Your task to perform on an android device: all mails in gmail Image 0: 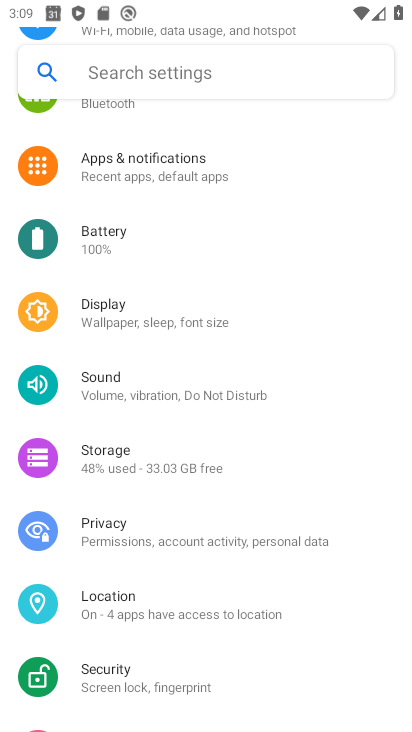
Step 0: press back button
Your task to perform on an android device: all mails in gmail Image 1: 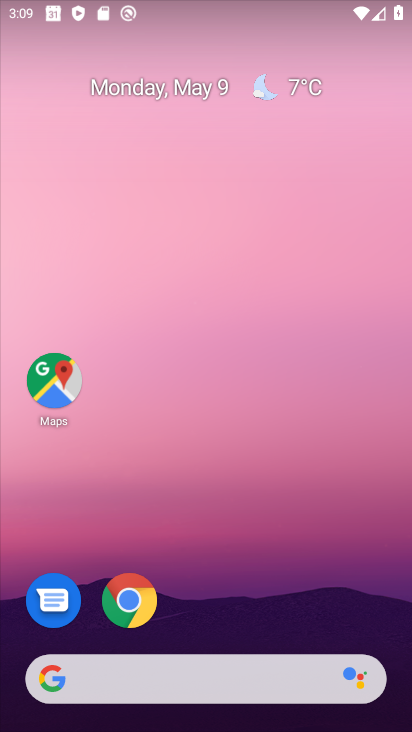
Step 1: drag from (330, 570) to (276, 65)
Your task to perform on an android device: all mails in gmail Image 2: 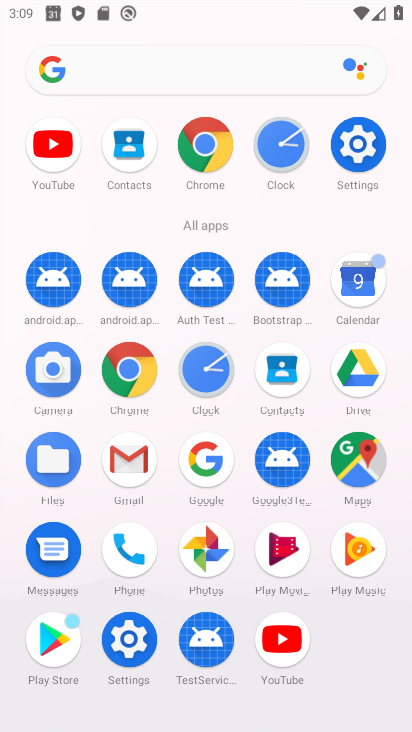
Step 2: click (129, 452)
Your task to perform on an android device: all mails in gmail Image 3: 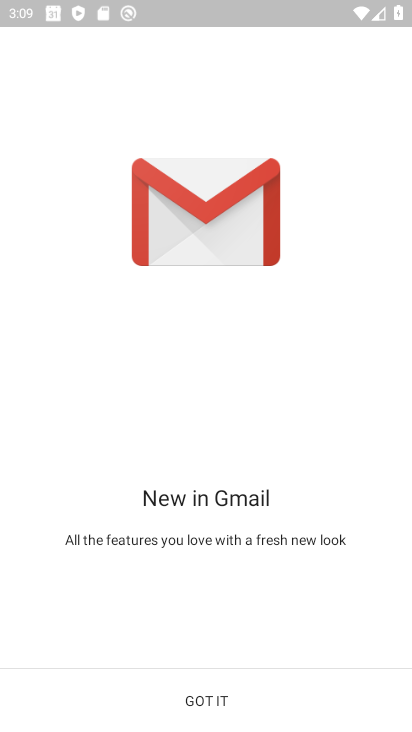
Step 3: click (210, 710)
Your task to perform on an android device: all mails in gmail Image 4: 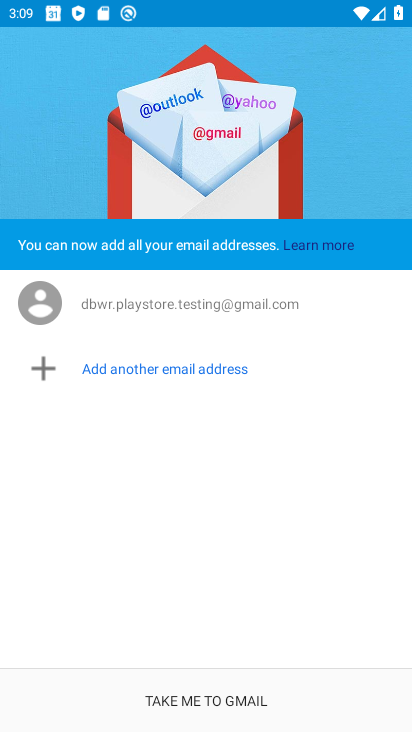
Step 4: click (209, 693)
Your task to perform on an android device: all mails in gmail Image 5: 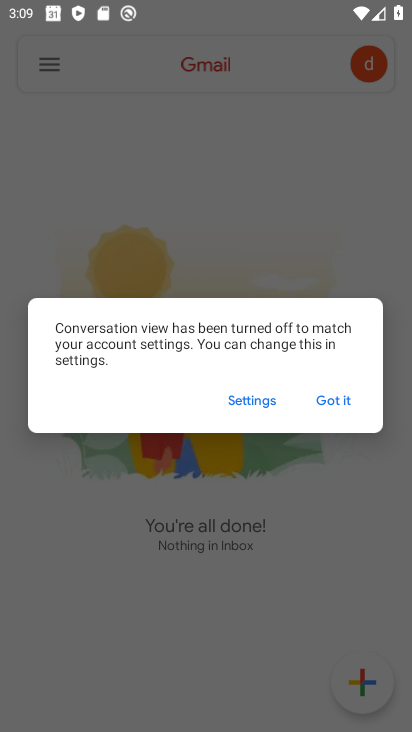
Step 5: click (320, 402)
Your task to perform on an android device: all mails in gmail Image 6: 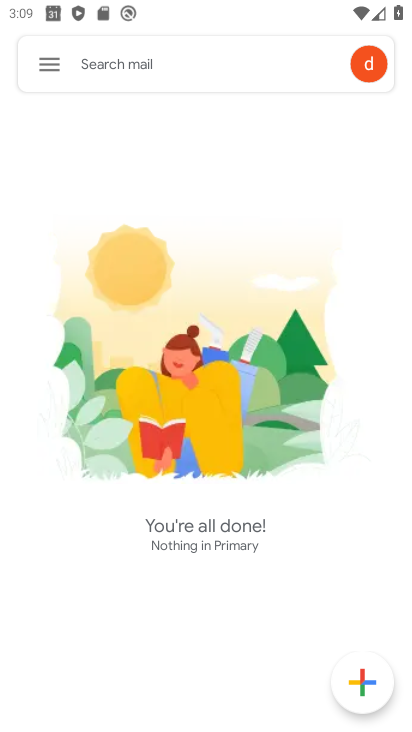
Step 6: click (40, 52)
Your task to perform on an android device: all mails in gmail Image 7: 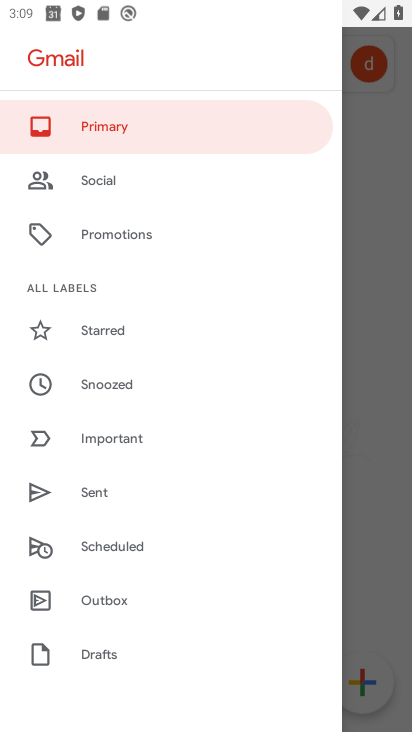
Step 7: drag from (208, 241) to (212, 672)
Your task to perform on an android device: all mails in gmail Image 8: 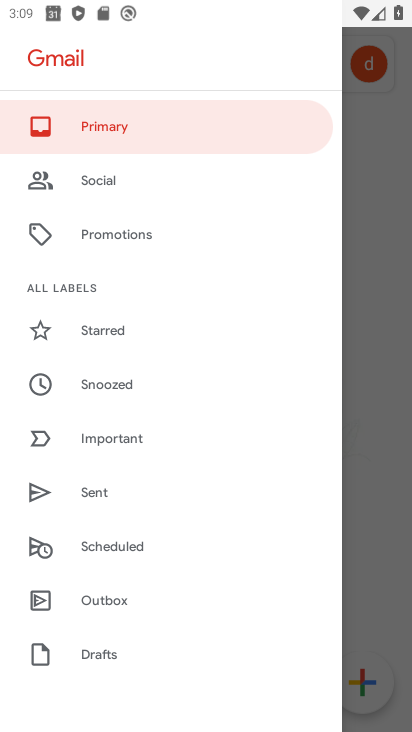
Step 8: drag from (212, 608) to (190, 165)
Your task to perform on an android device: all mails in gmail Image 9: 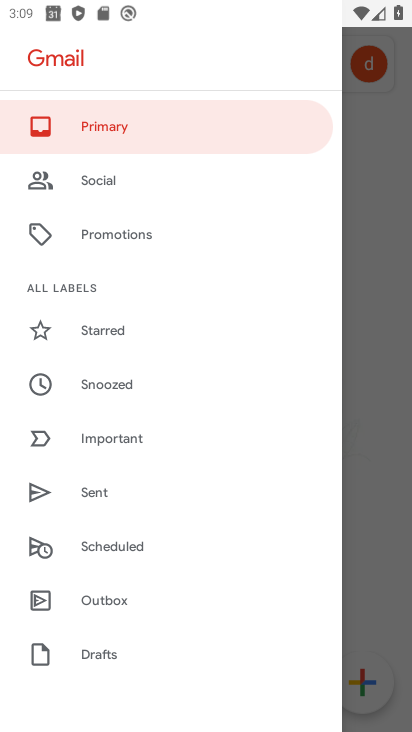
Step 9: drag from (180, 521) to (192, 103)
Your task to perform on an android device: all mails in gmail Image 10: 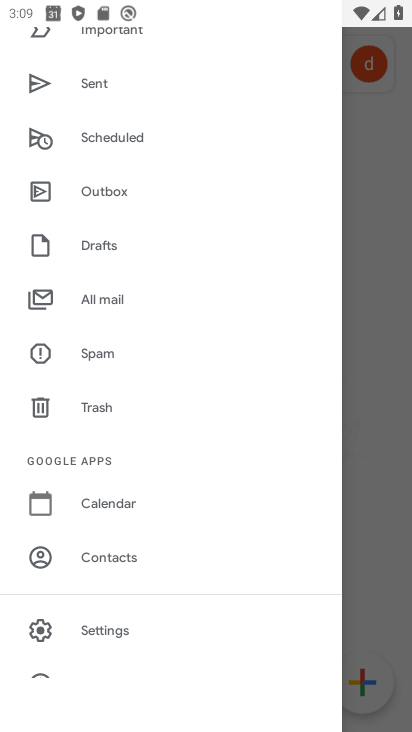
Step 10: click (130, 303)
Your task to perform on an android device: all mails in gmail Image 11: 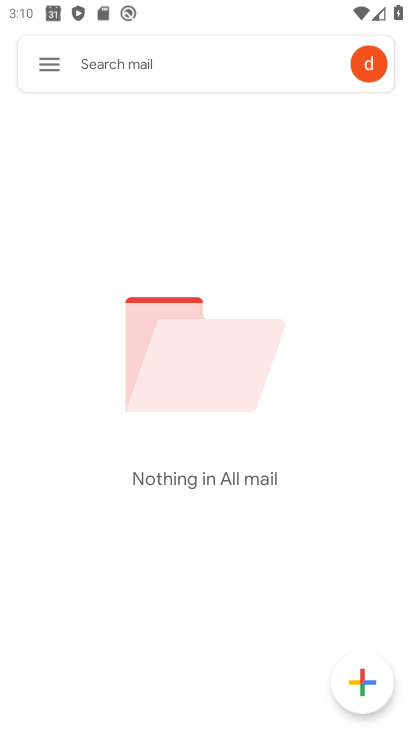
Step 11: task complete